Your task to perform on an android device: add a contact in the contacts app Image 0: 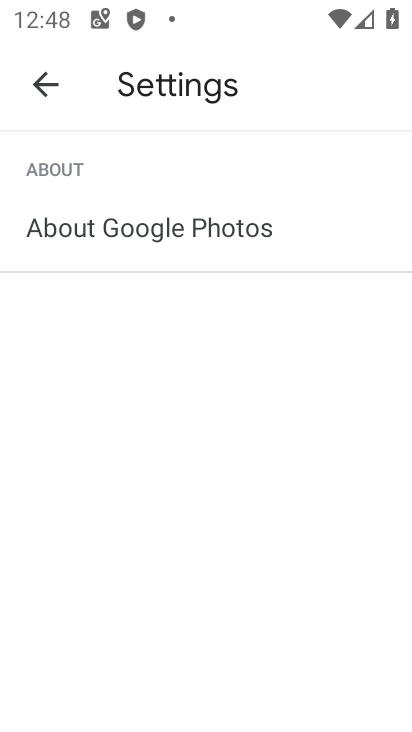
Step 0: press home button
Your task to perform on an android device: add a contact in the contacts app Image 1: 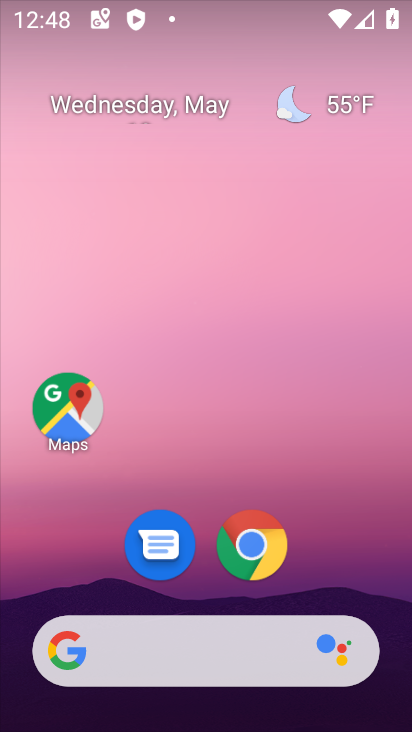
Step 1: drag from (367, 534) to (335, 7)
Your task to perform on an android device: add a contact in the contacts app Image 2: 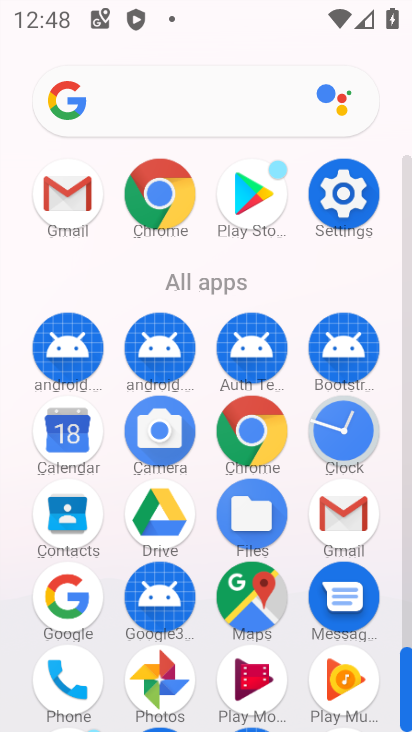
Step 2: click (78, 507)
Your task to perform on an android device: add a contact in the contacts app Image 3: 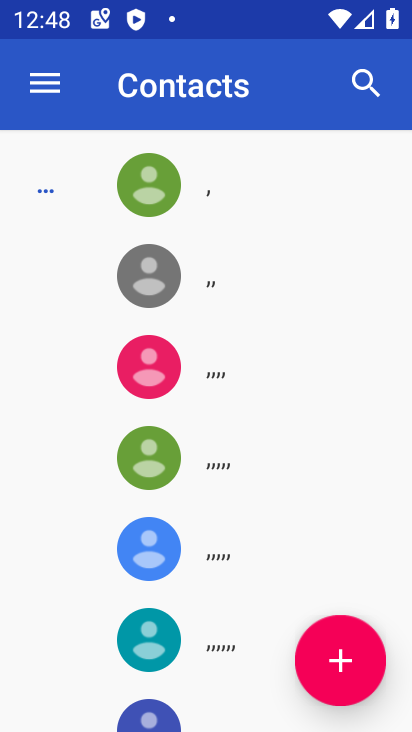
Step 3: click (338, 649)
Your task to perform on an android device: add a contact in the contacts app Image 4: 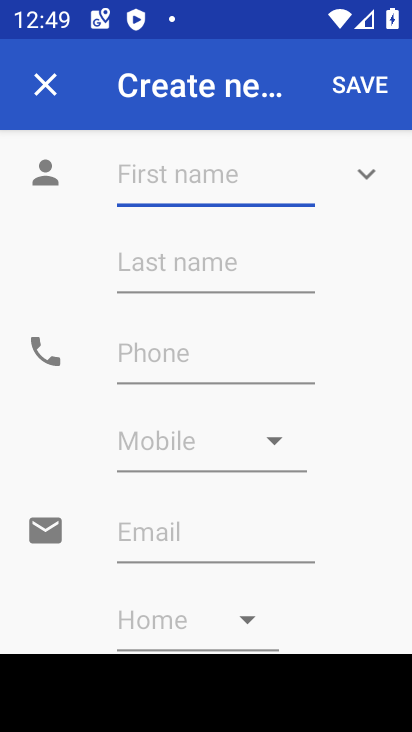
Step 4: type "rttrtr"
Your task to perform on an android device: add a contact in the contacts app Image 5: 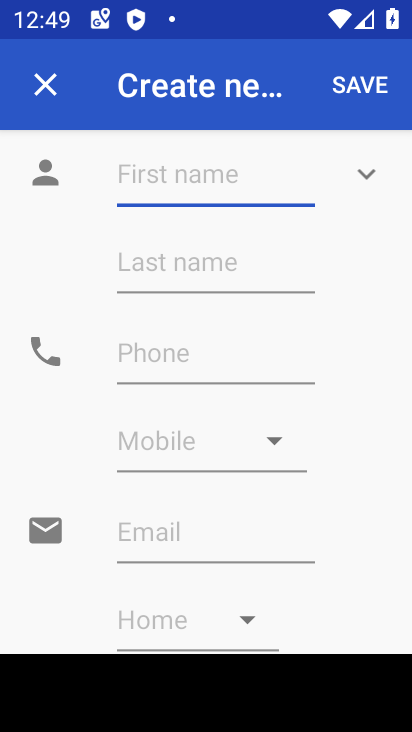
Step 5: click (214, 355)
Your task to perform on an android device: add a contact in the contacts app Image 6: 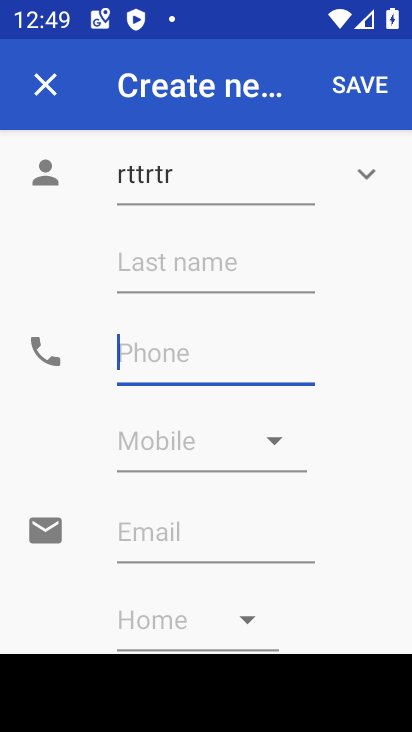
Step 6: type "6665556665"
Your task to perform on an android device: add a contact in the contacts app Image 7: 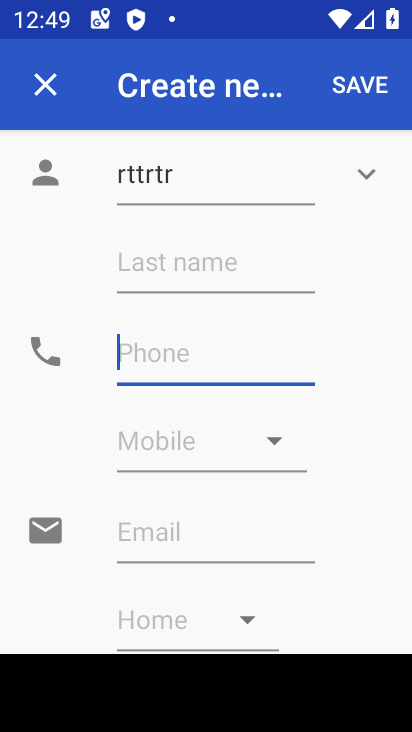
Step 7: click (369, 92)
Your task to perform on an android device: add a contact in the contacts app Image 8: 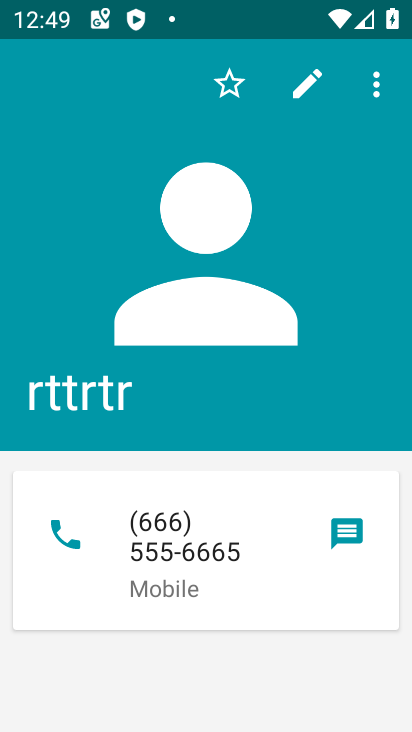
Step 8: task complete